Your task to perform on an android device: Open privacy settings Image 0: 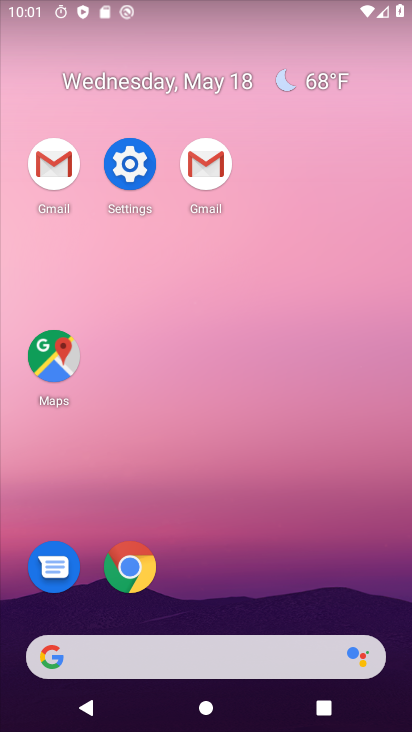
Step 0: click (131, 173)
Your task to perform on an android device: Open privacy settings Image 1: 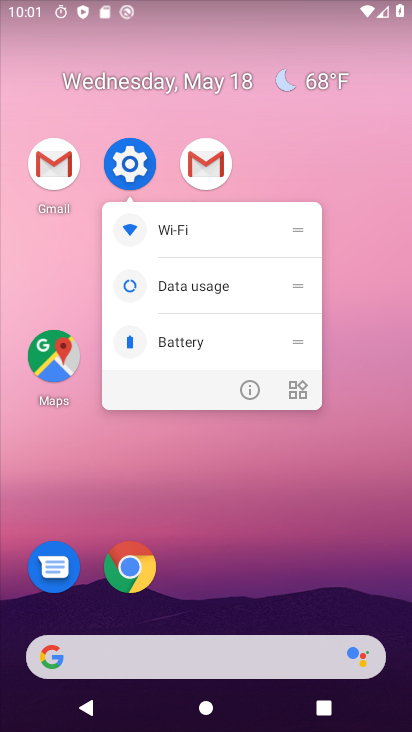
Step 1: click (154, 155)
Your task to perform on an android device: Open privacy settings Image 2: 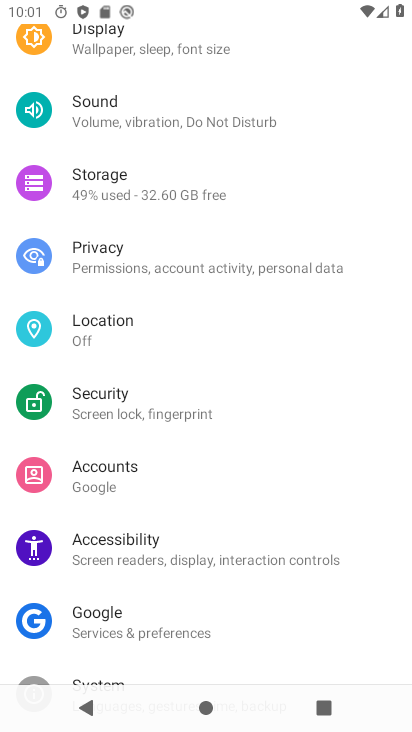
Step 2: click (177, 252)
Your task to perform on an android device: Open privacy settings Image 3: 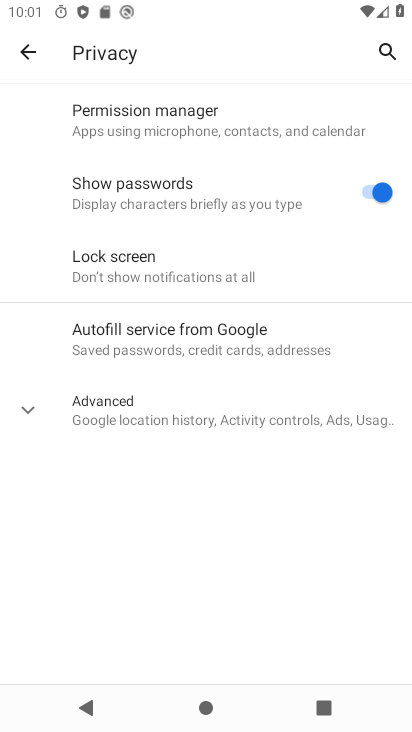
Step 3: task complete